Your task to perform on an android device: open chrome privacy settings Image 0: 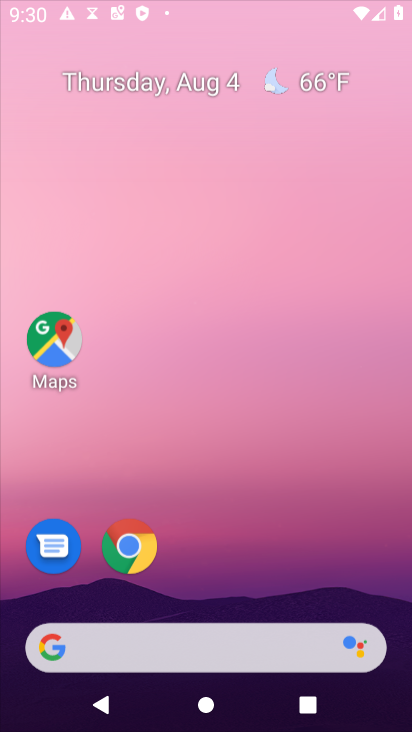
Step 0: press home button
Your task to perform on an android device: open chrome privacy settings Image 1: 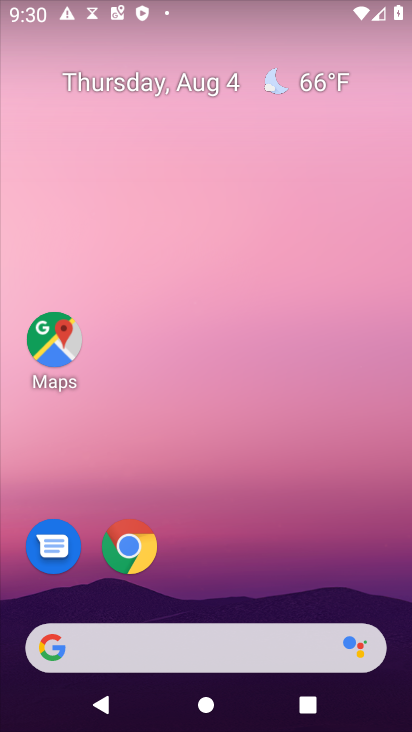
Step 1: click (138, 552)
Your task to perform on an android device: open chrome privacy settings Image 2: 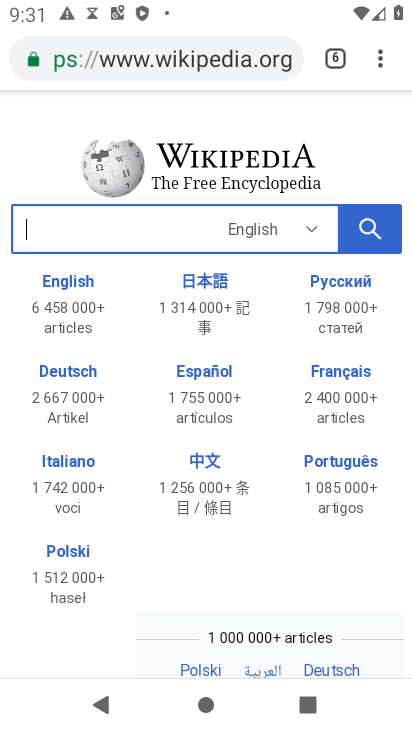
Step 2: drag from (378, 53) to (205, 569)
Your task to perform on an android device: open chrome privacy settings Image 3: 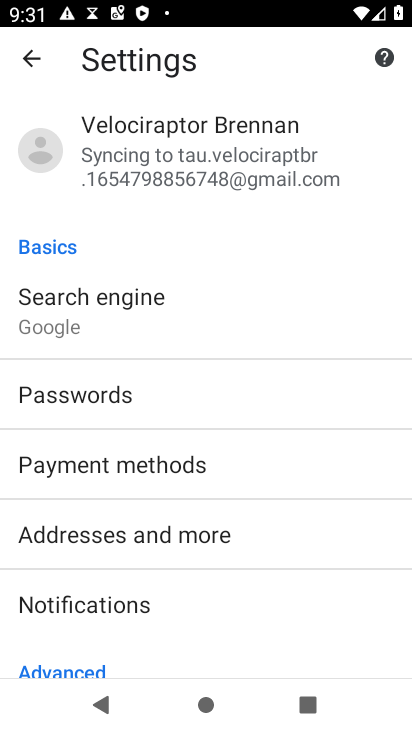
Step 3: drag from (259, 636) to (216, 98)
Your task to perform on an android device: open chrome privacy settings Image 4: 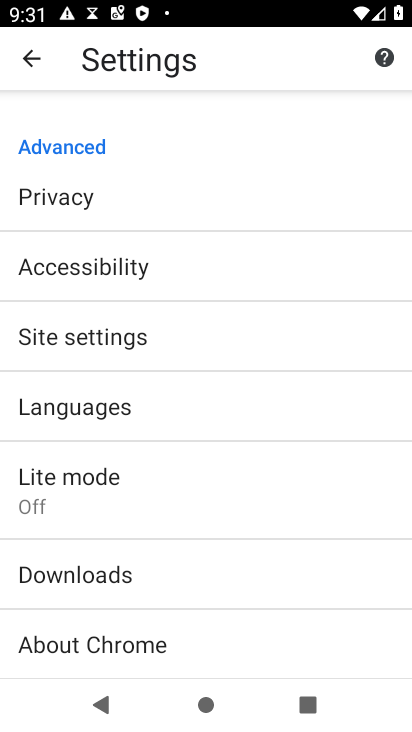
Step 4: click (63, 196)
Your task to perform on an android device: open chrome privacy settings Image 5: 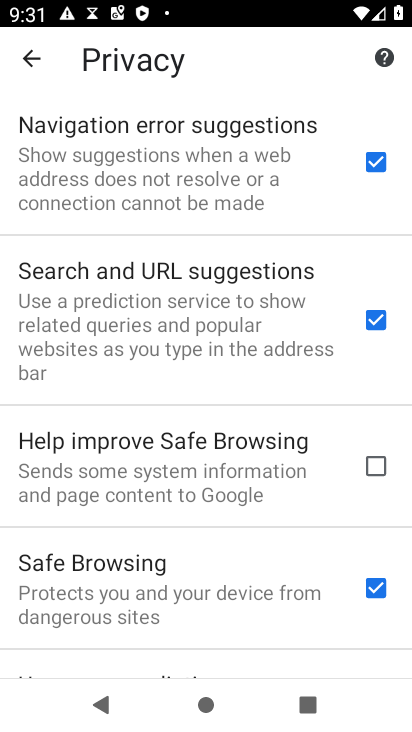
Step 5: task complete